Your task to perform on an android device: What is the news today? Image 0: 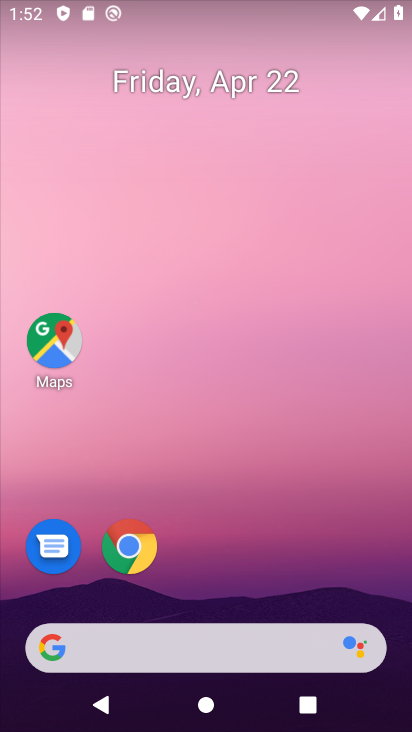
Step 0: drag from (238, 527) to (243, 228)
Your task to perform on an android device: What is the news today? Image 1: 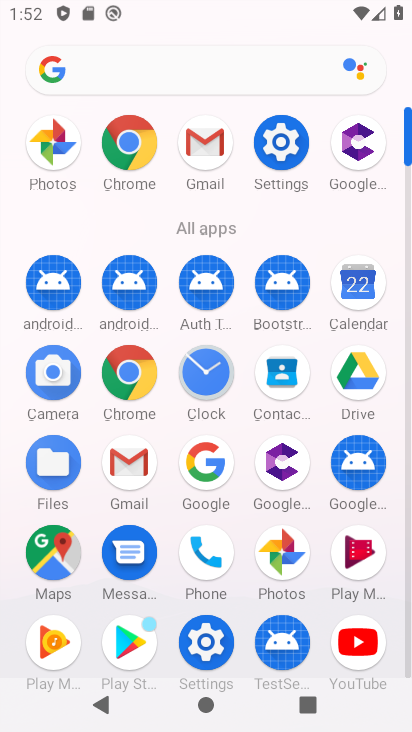
Step 1: drag from (187, 489) to (192, 365)
Your task to perform on an android device: What is the news today? Image 2: 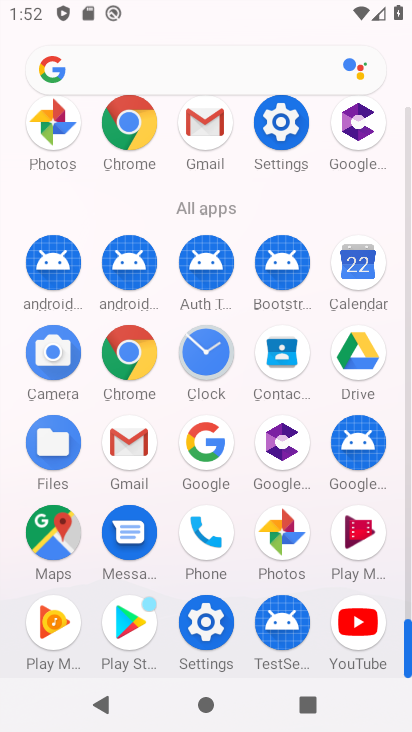
Step 2: click (220, 447)
Your task to perform on an android device: What is the news today? Image 3: 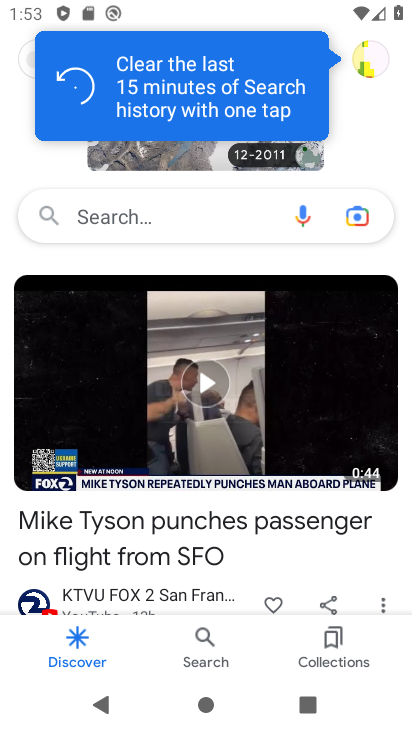
Step 3: click (188, 214)
Your task to perform on an android device: What is the news today? Image 4: 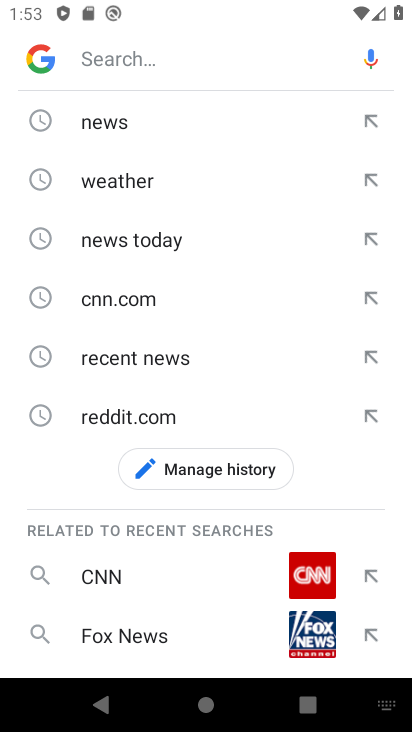
Step 4: click (174, 255)
Your task to perform on an android device: What is the news today? Image 5: 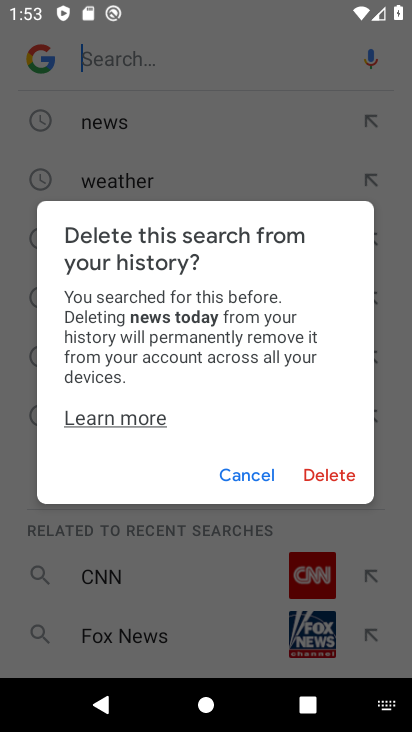
Step 5: click (247, 466)
Your task to perform on an android device: What is the news today? Image 6: 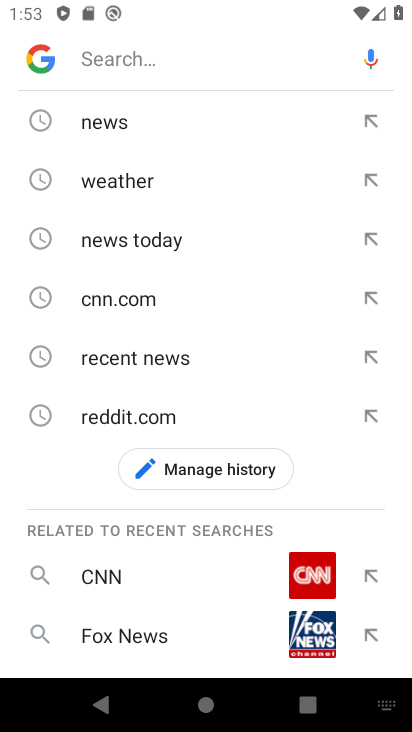
Step 6: click (365, 124)
Your task to perform on an android device: What is the news today? Image 7: 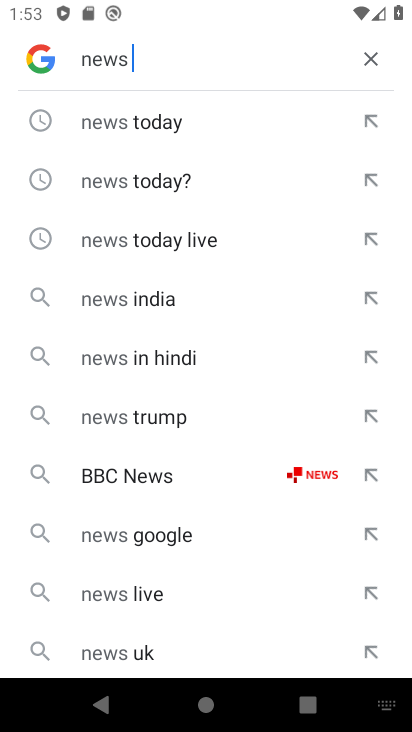
Step 7: click (262, 133)
Your task to perform on an android device: What is the news today? Image 8: 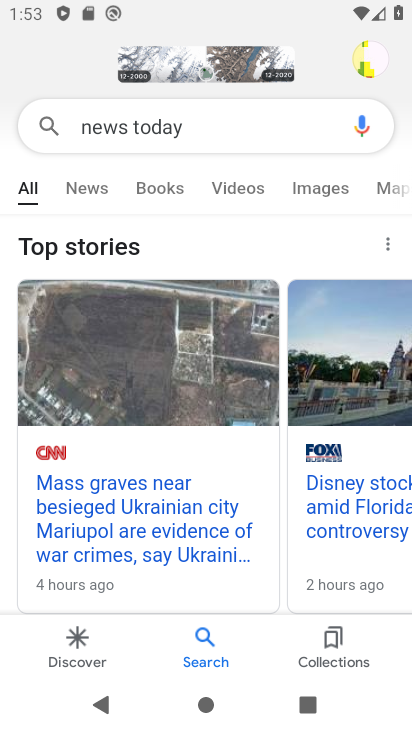
Step 8: click (105, 193)
Your task to perform on an android device: What is the news today? Image 9: 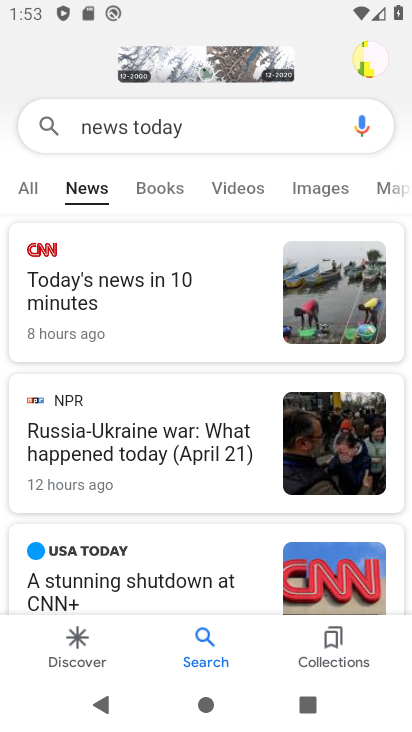
Step 9: task complete